Your task to perform on an android device: set an alarm Image 0: 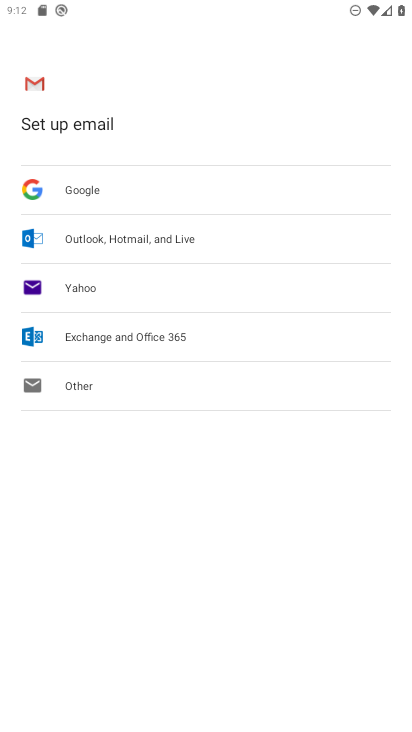
Step 0: press home button
Your task to perform on an android device: set an alarm Image 1: 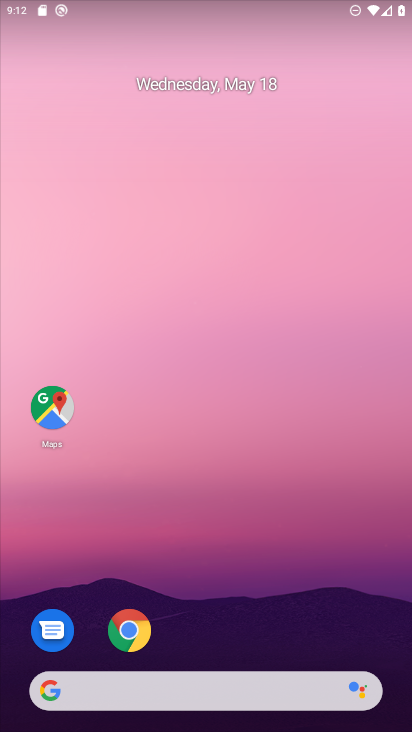
Step 1: drag from (221, 658) to (183, 116)
Your task to perform on an android device: set an alarm Image 2: 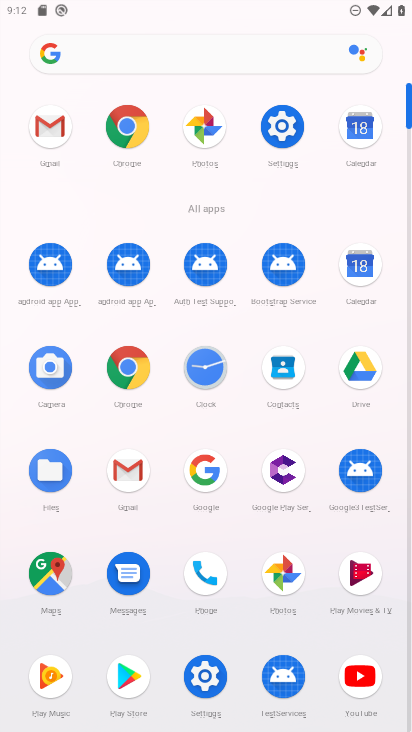
Step 2: click (208, 368)
Your task to perform on an android device: set an alarm Image 3: 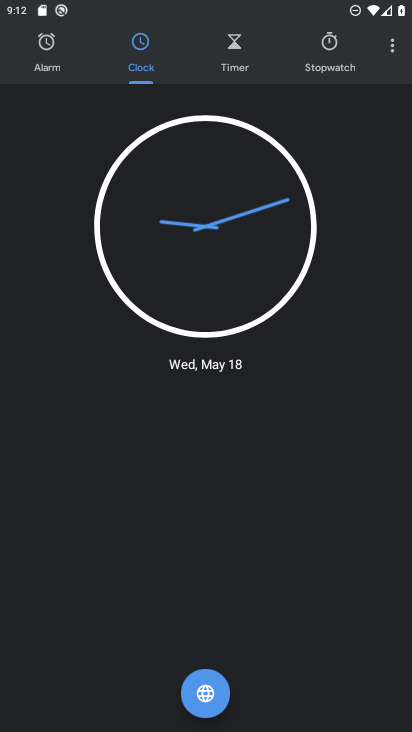
Step 3: click (58, 51)
Your task to perform on an android device: set an alarm Image 4: 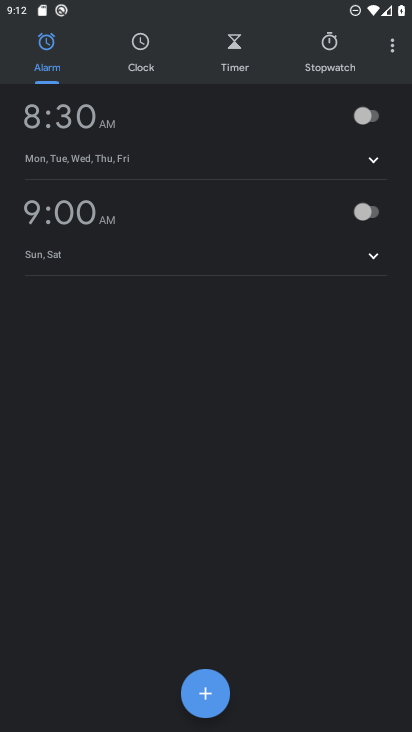
Step 4: click (226, 701)
Your task to perform on an android device: set an alarm Image 5: 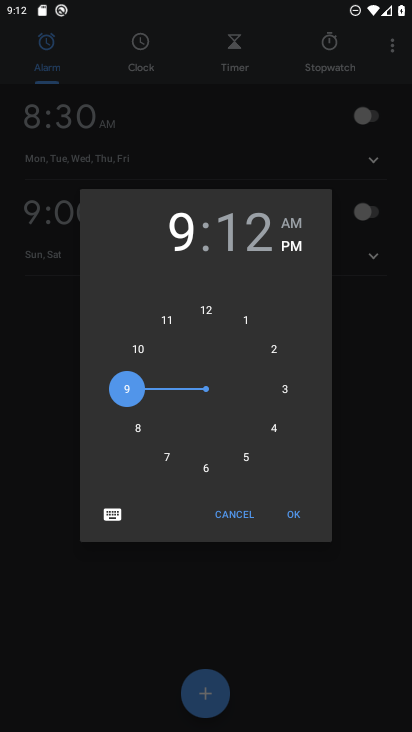
Step 5: click (290, 519)
Your task to perform on an android device: set an alarm Image 6: 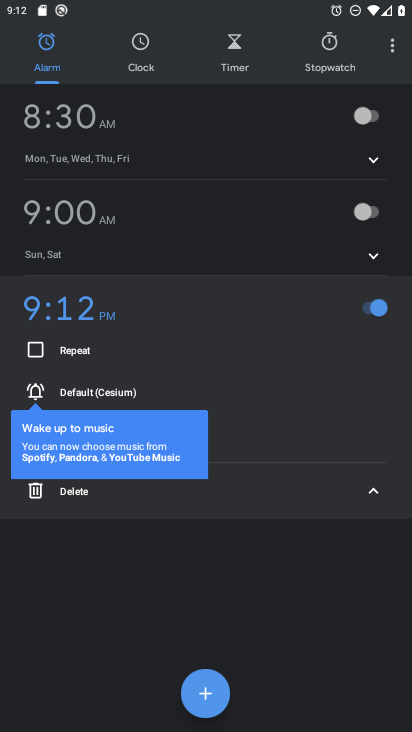
Step 6: task complete